Your task to perform on an android device: Open location settings Image 0: 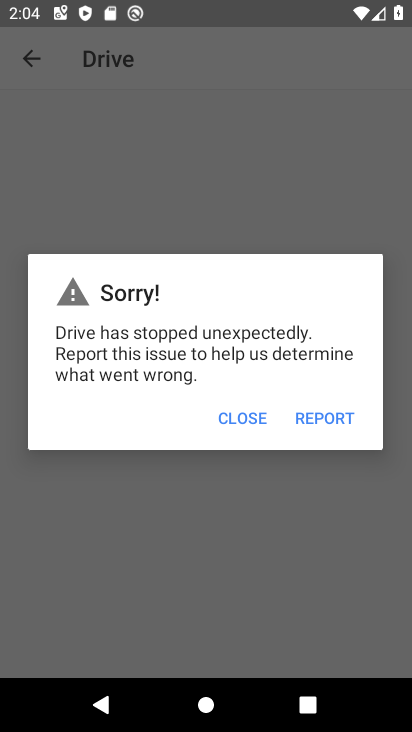
Step 0: press home button
Your task to perform on an android device: Open location settings Image 1: 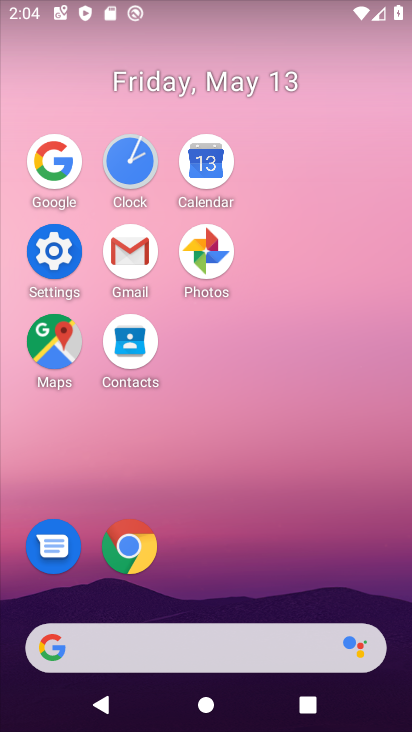
Step 1: click (68, 243)
Your task to perform on an android device: Open location settings Image 2: 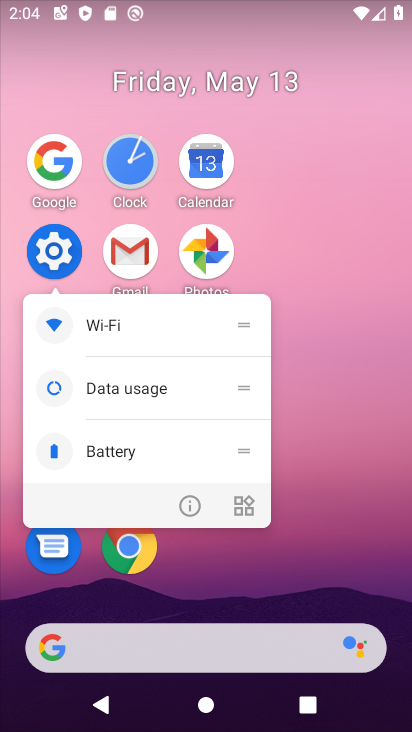
Step 2: click (55, 242)
Your task to perform on an android device: Open location settings Image 3: 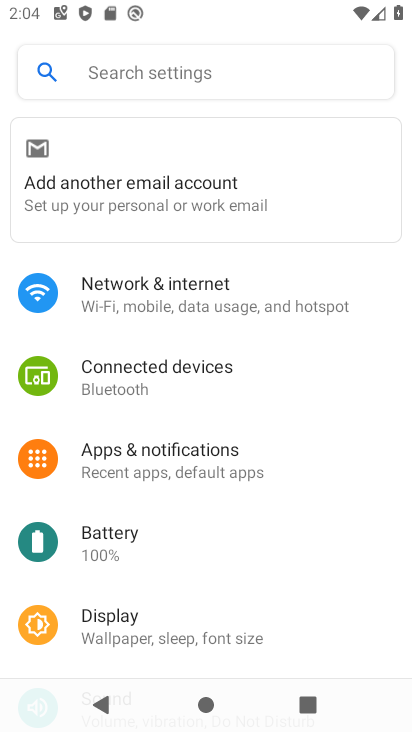
Step 3: drag from (248, 555) to (263, 149)
Your task to perform on an android device: Open location settings Image 4: 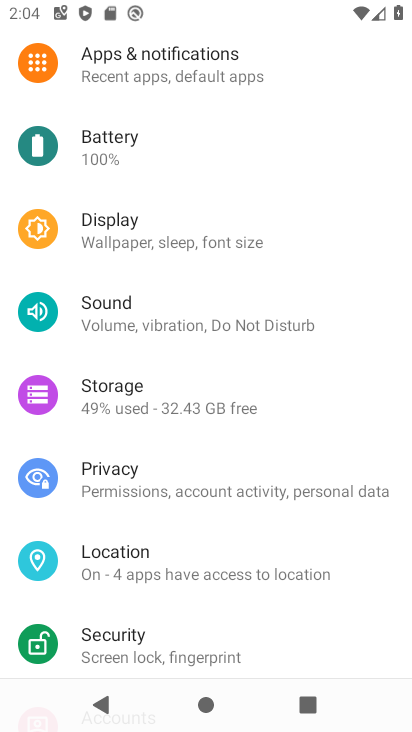
Step 4: click (235, 543)
Your task to perform on an android device: Open location settings Image 5: 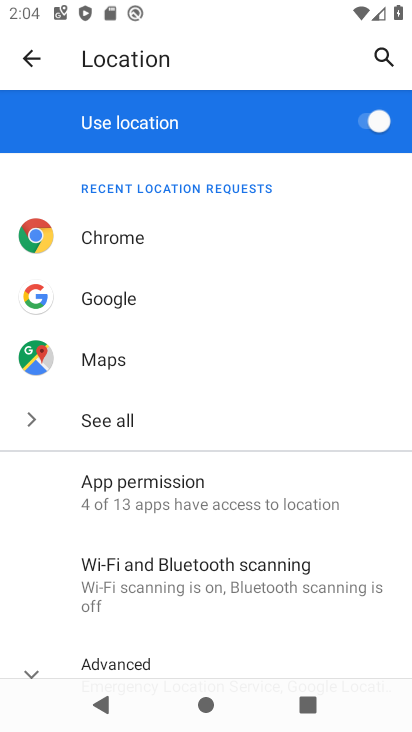
Step 5: task complete